Your task to perform on an android device: Open Reddit.com Image 0: 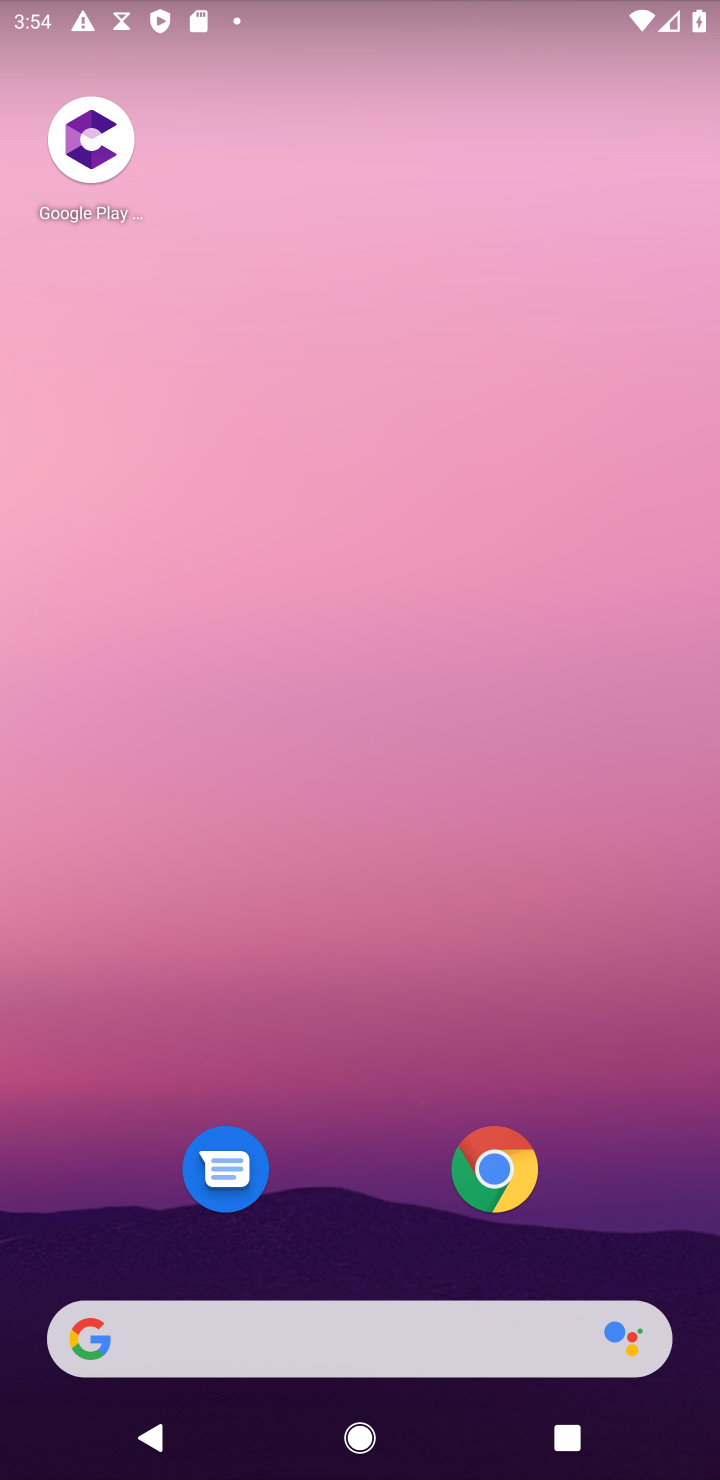
Step 0: click (477, 1175)
Your task to perform on an android device: Open Reddit.com Image 1: 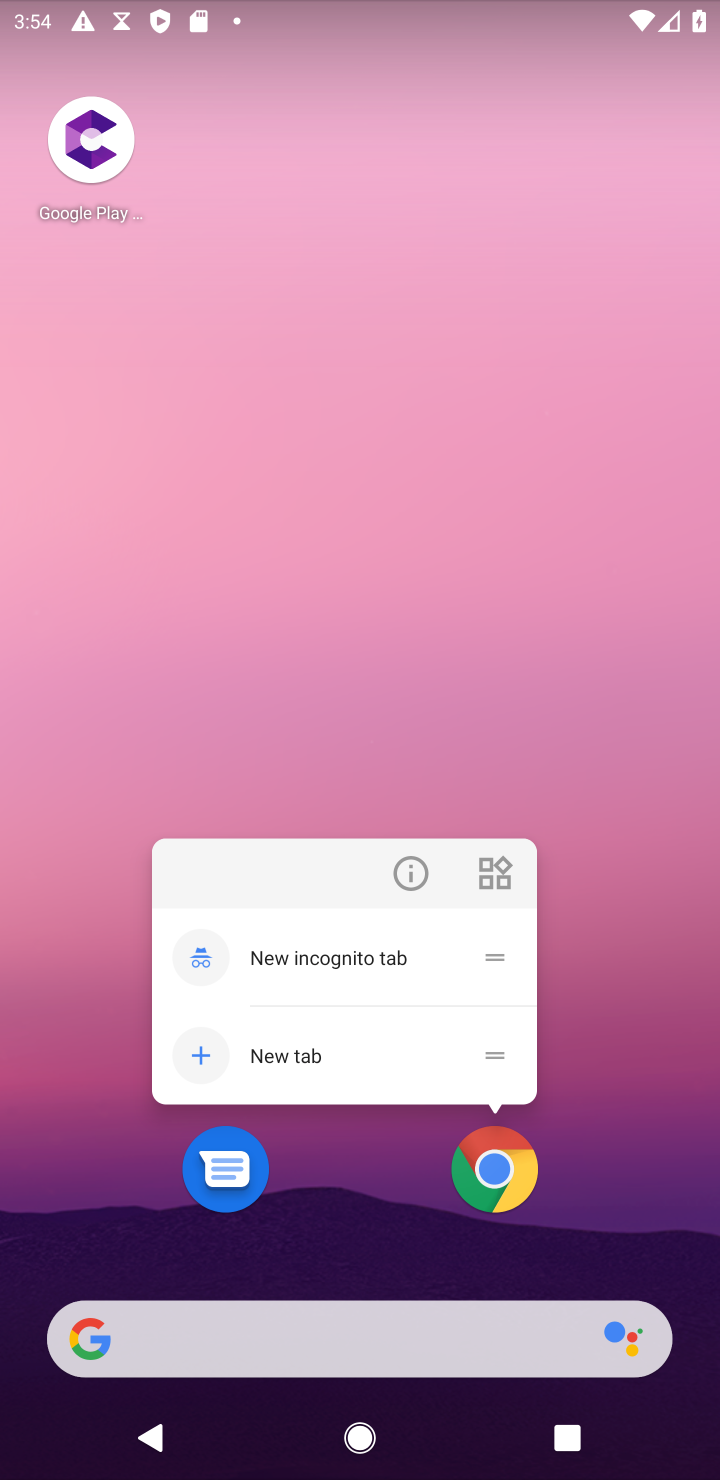
Step 1: click (502, 1155)
Your task to perform on an android device: Open Reddit.com Image 2: 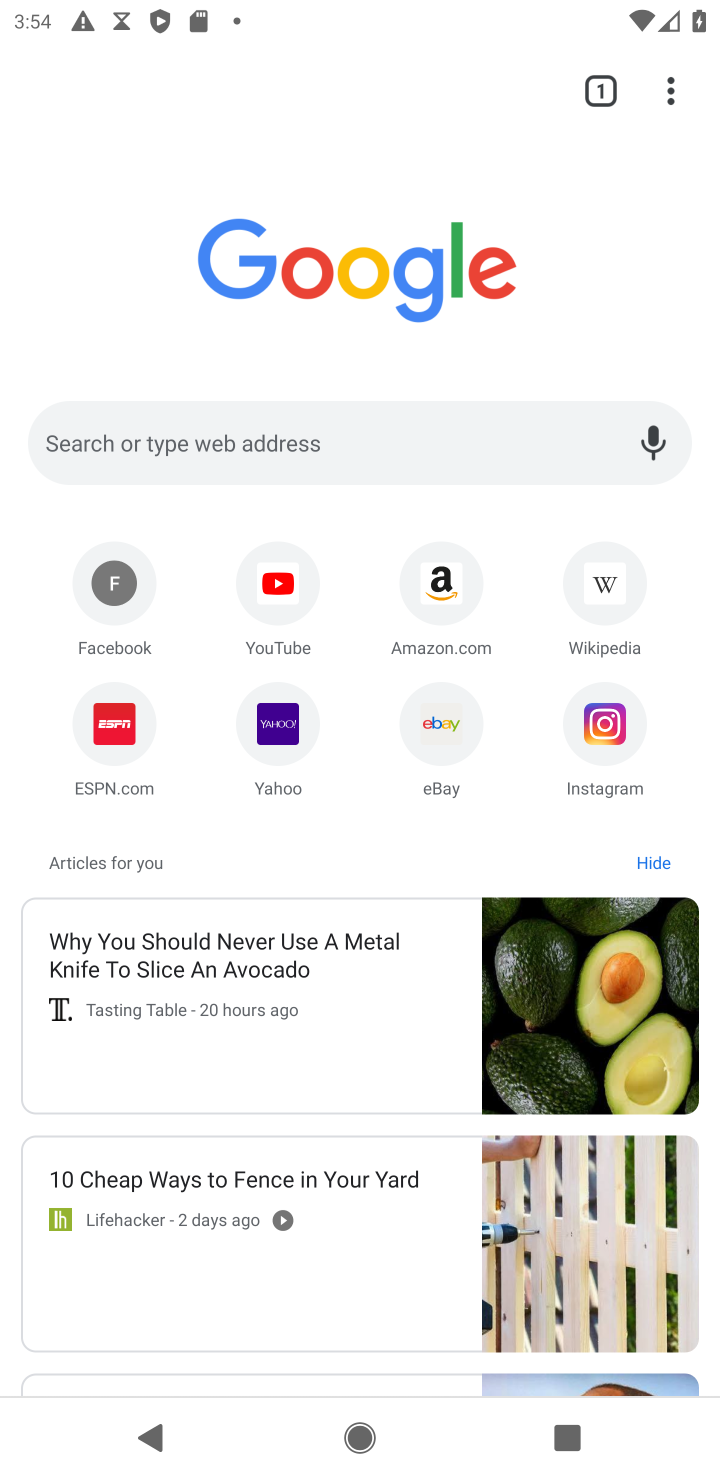
Step 2: click (238, 446)
Your task to perform on an android device: Open Reddit.com Image 3: 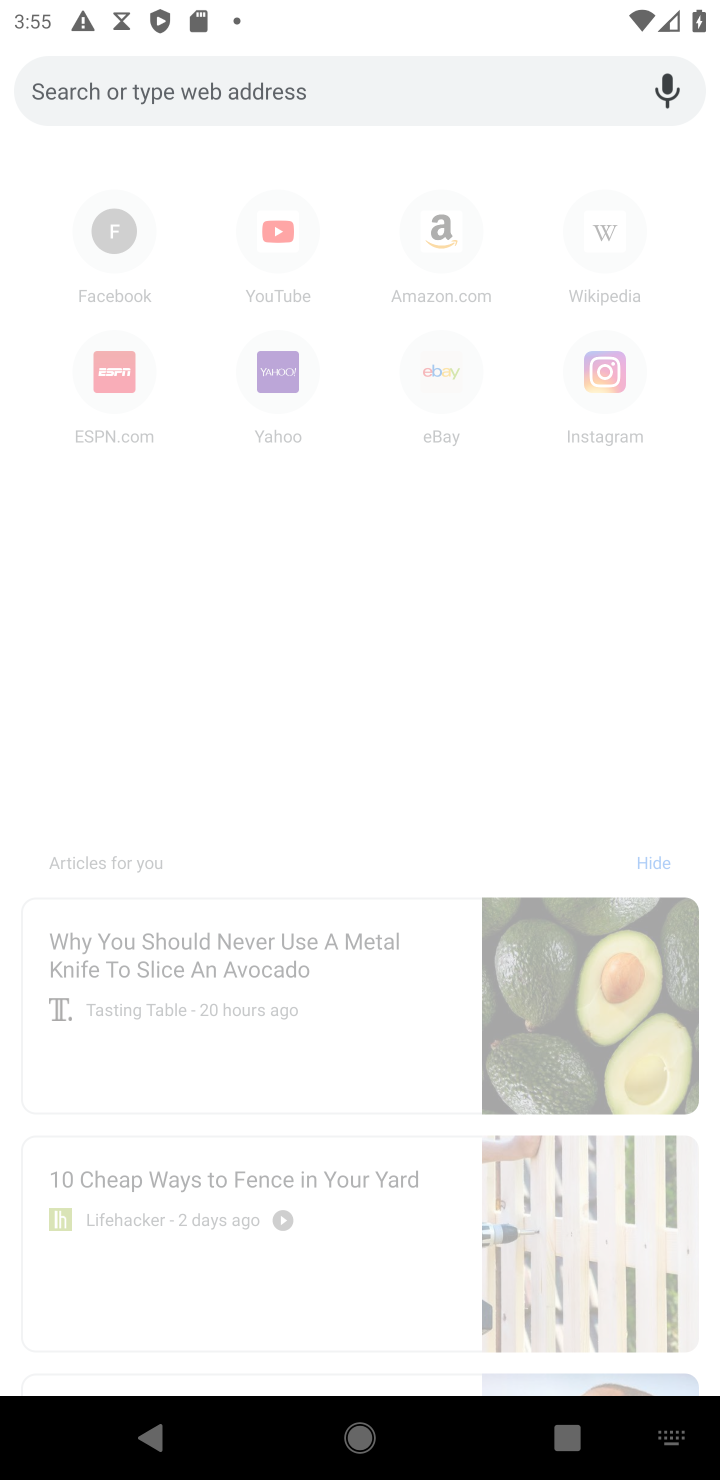
Step 3: type "reddit.com"
Your task to perform on an android device: Open Reddit.com Image 4: 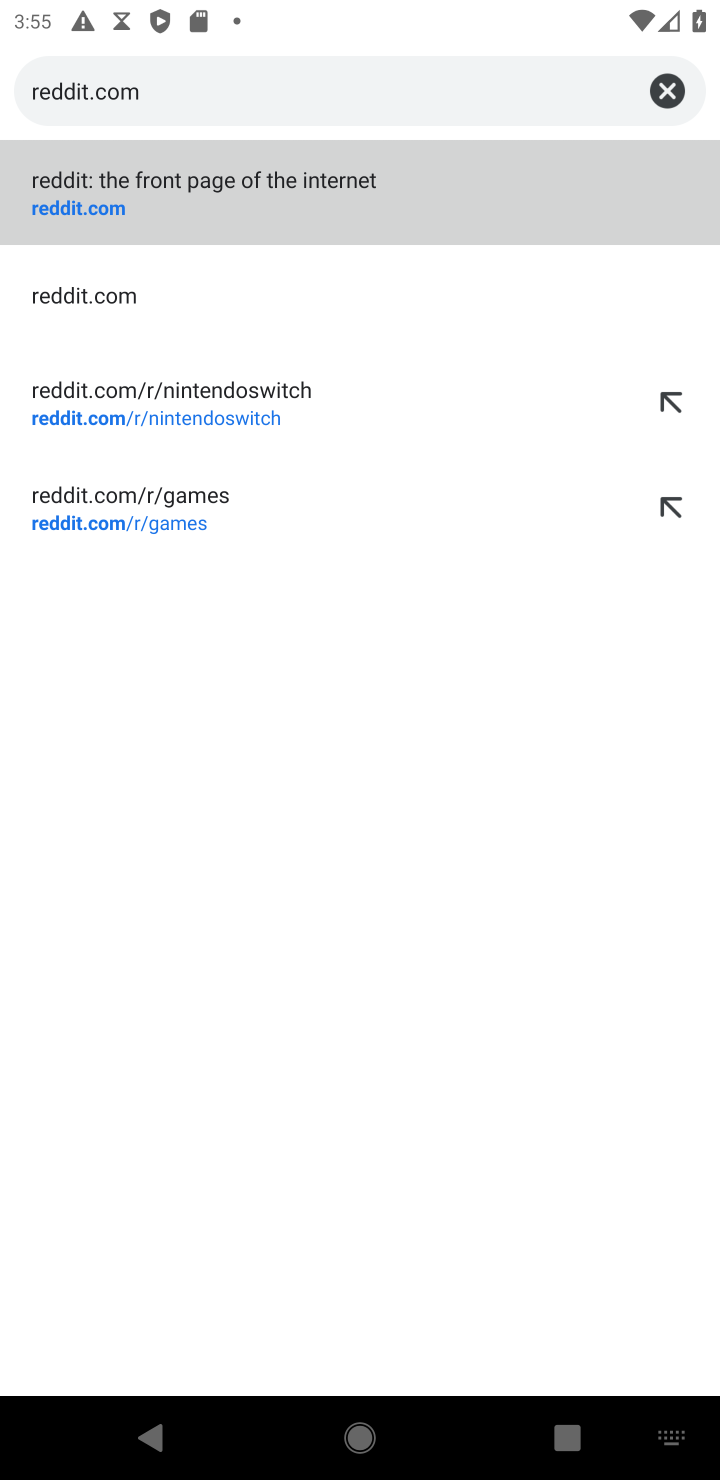
Step 4: click (325, 208)
Your task to perform on an android device: Open Reddit.com Image 5: 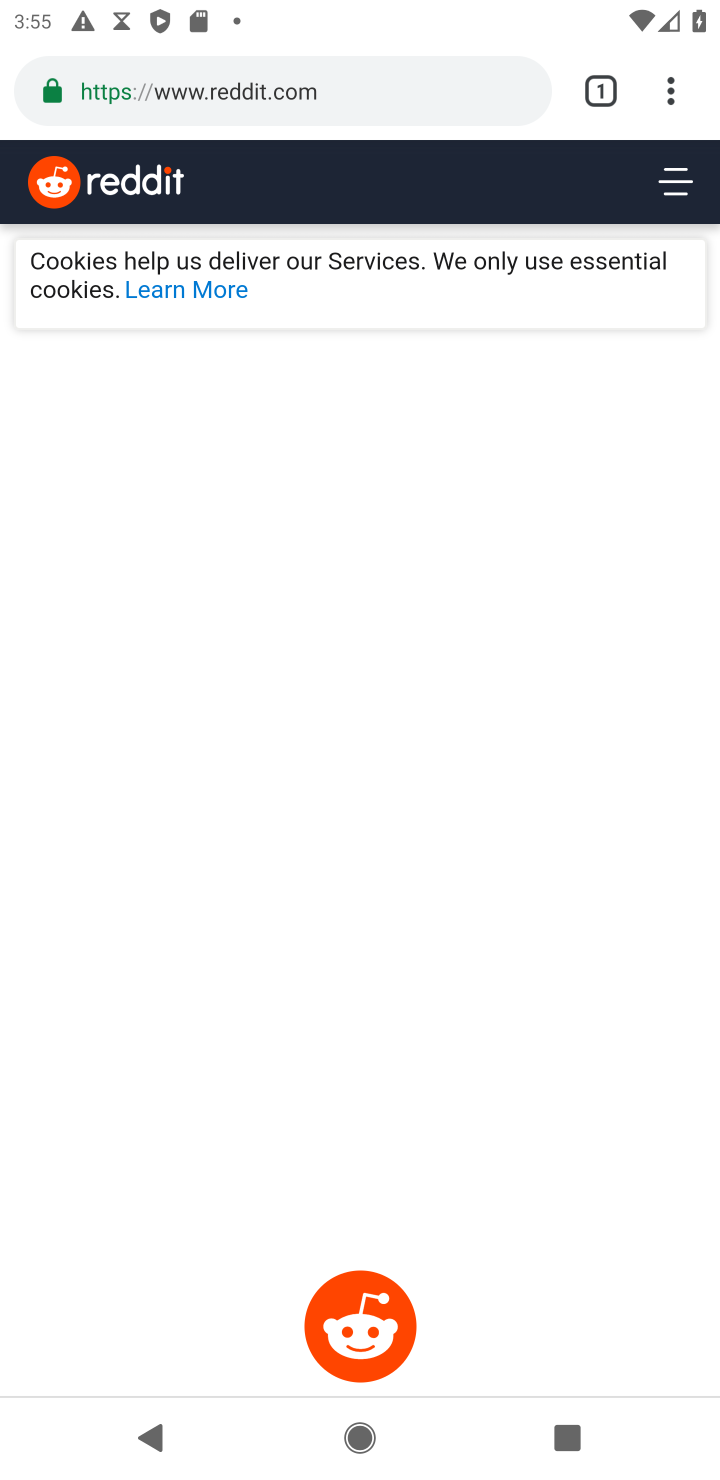
Step 5: task complete